Your task to perform on an android device: Is it going to rain tomorrow? Image 0: 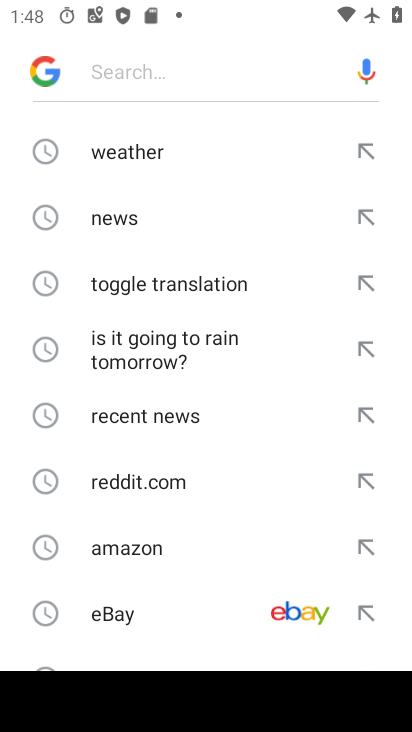
Step 0: press home button
Your task to perform on an android device: Is it going to rain tomorrow? Image 1: 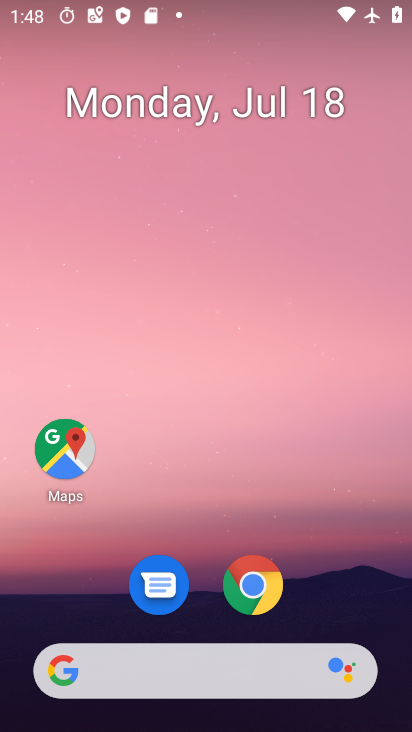
Step 1: click (146, 662)
Your task to perform on an android device: Is it going to rain tomorrow? Image 2: 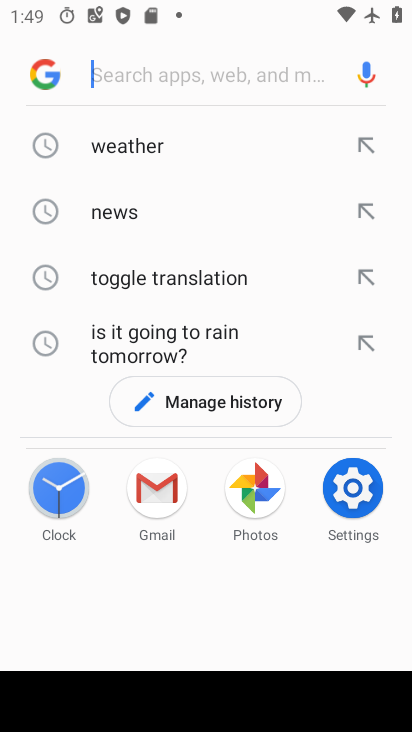
Step 2: click (128, 153)
Your task to perform on an android device: Is it going to rain tomorrow? Image 3: 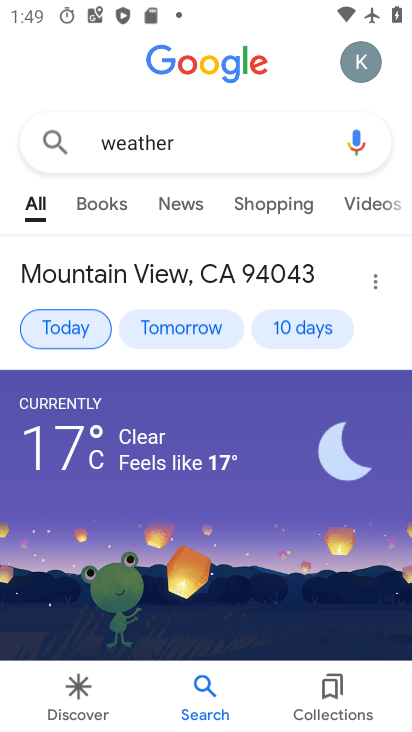
Step 3: click (190, 334)
Your task to perform on an android device: Is it going to rain tomorrow? Image 4: 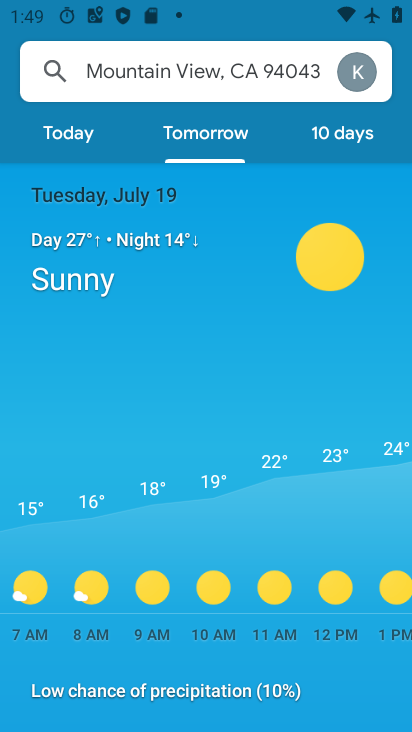
Step 4: task complete